Your task to perform on an android device: toggle priority inbox in the gmail app Image 0: 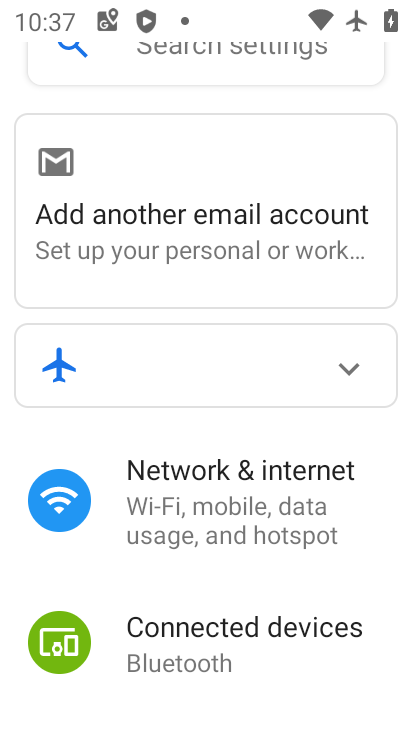
Step 0: press home button
Your task to perform on an android device: toggle priority inbox in the gmail app Image 1: 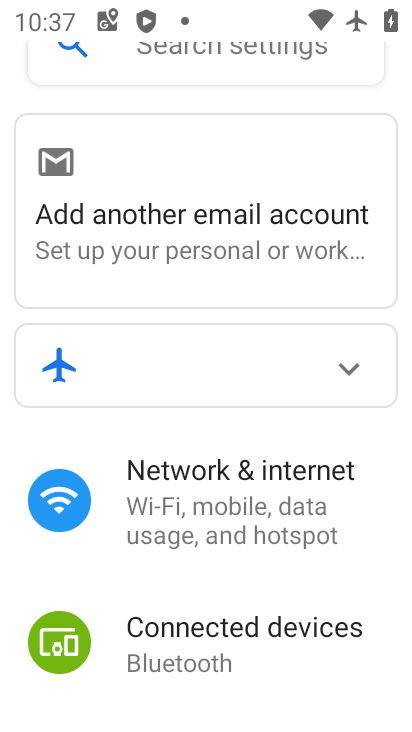
Step 1: press home button
Your task to perform on an android device: toggle priority inbox in the gmail app Image 2: 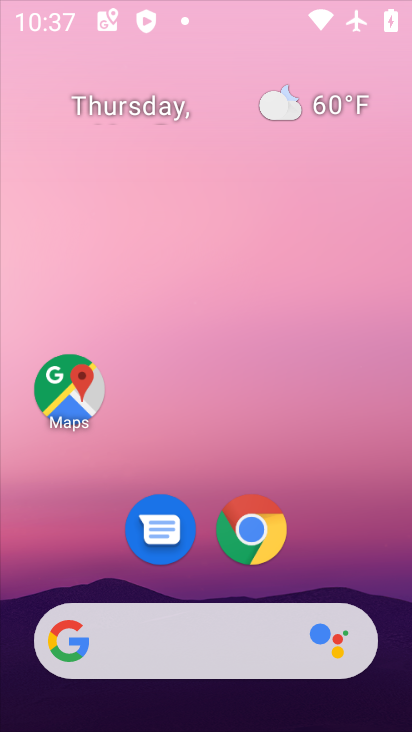
Step 2: press home button
Your task to perform on an android device: toggle priority inbox in the gmail app Image 3: 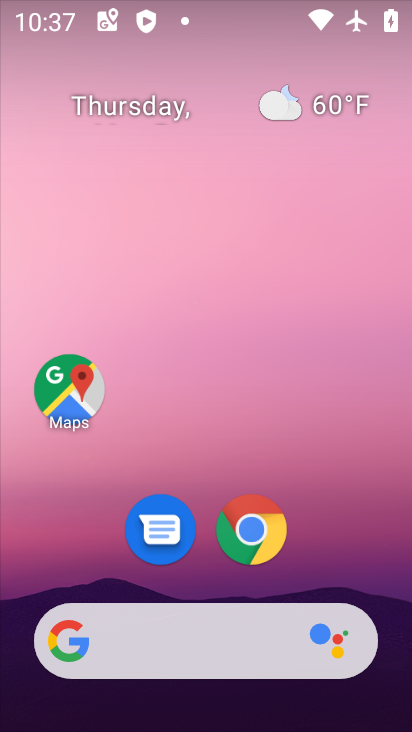
Step 3: drag from (345, 587) to (190, 233)
Your task to perform on an android device: toggle priority inbox in the gmail app Image 4: 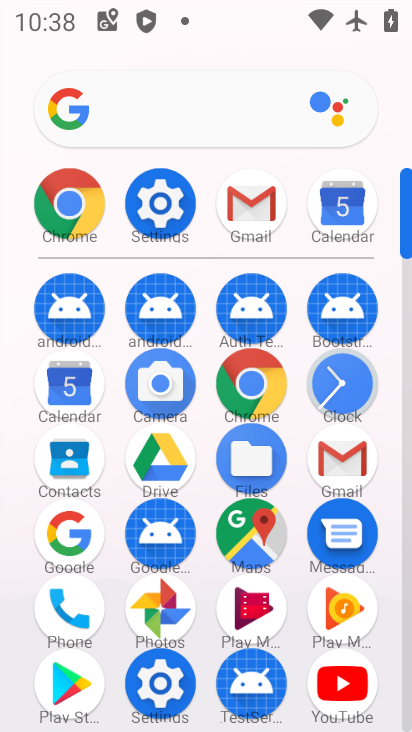
Step 4: click (337, 456)
Your task to perform on an android device: toggle priority inbox in the gmail app Image 5: 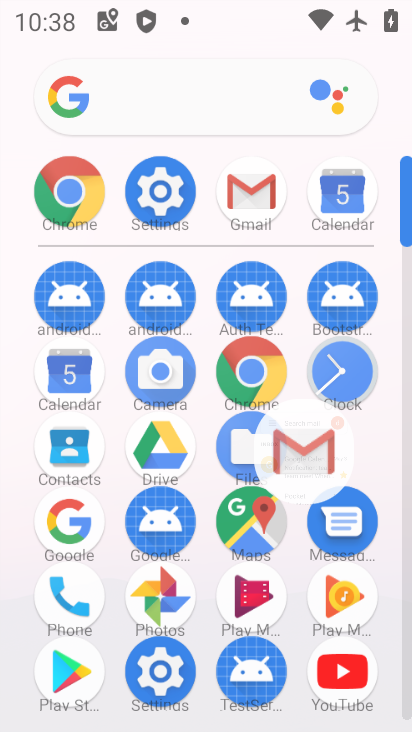
Step 5: click (337, 456)
Your task to perform on an android device: toggle priority inbox in the gmail app Image 6: 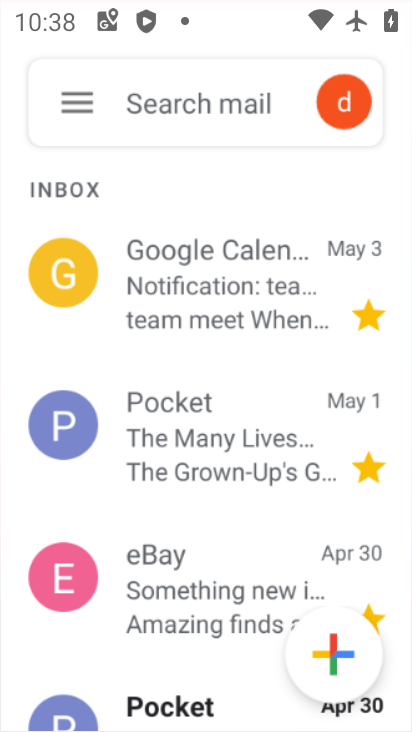
Step 6: click (338, 455)
Your task to perform on an android device: toggle priority inbox in the gmail app Image 7: 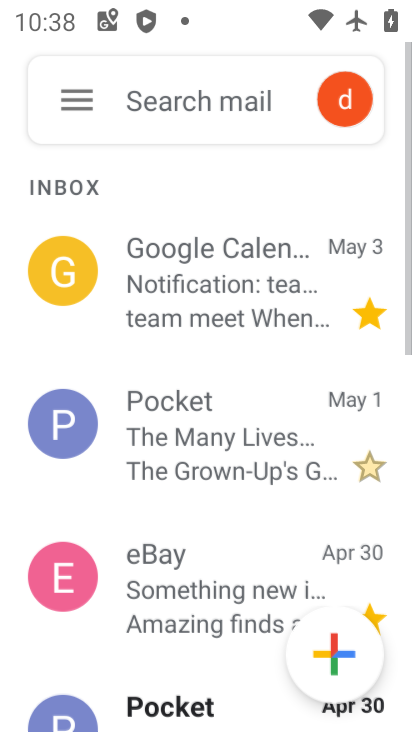
Step 7: click (338, 455)
Your task to perform on an android device: toggle priority inbox in the gmail app Image 8: 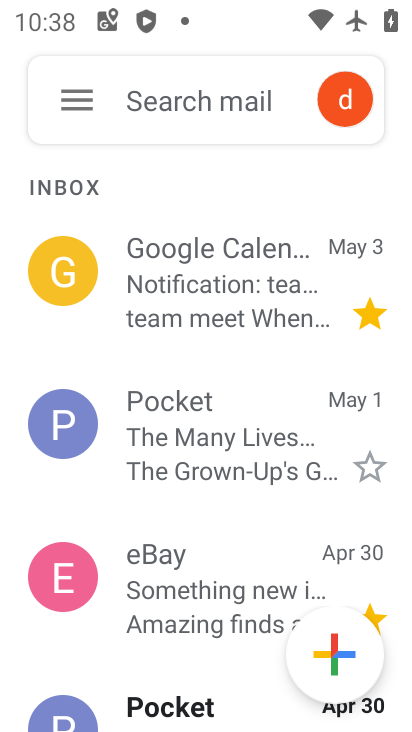
Step 8: click (67, 94)
Your task to perform on an android device: toggle priority inbox in the gmail app Image 9: 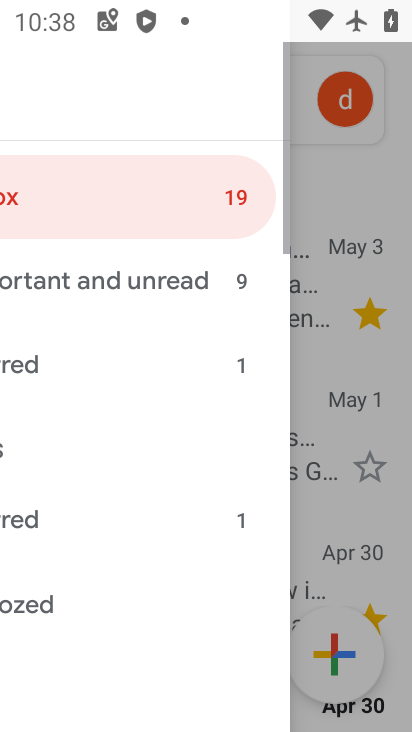
Step 9: click (68, 95)
Your task to perform on an android device: toggle priority inbox in the gmail app Image 10: 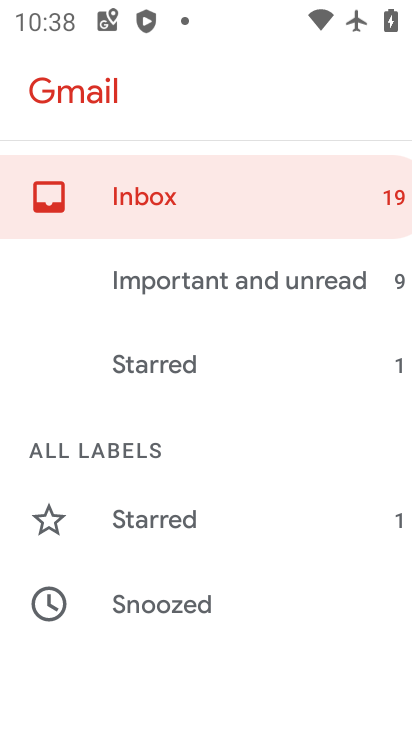
Step 10: click (69, 96)
Your task to perform on an android device: toggle priority inbox in the gmail app Image 11: 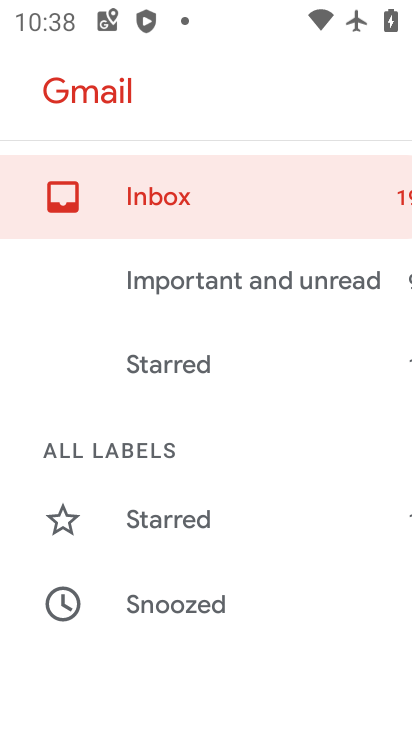
Step 11: drag from (201, 525) to (189, 129)
Your task to perform on an android device: toggle priority inbox in the gmail app Image 12: 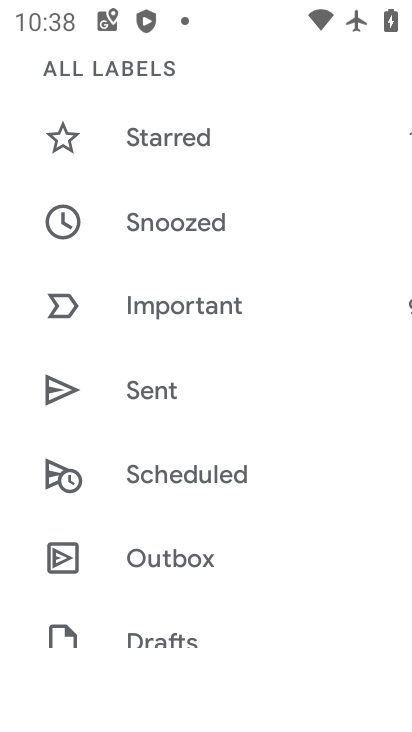
Step 12: drag from (254, 475) to (200, 0)
Your task to perform on an android device: toggle priority inbox in the gmail app Image 13: 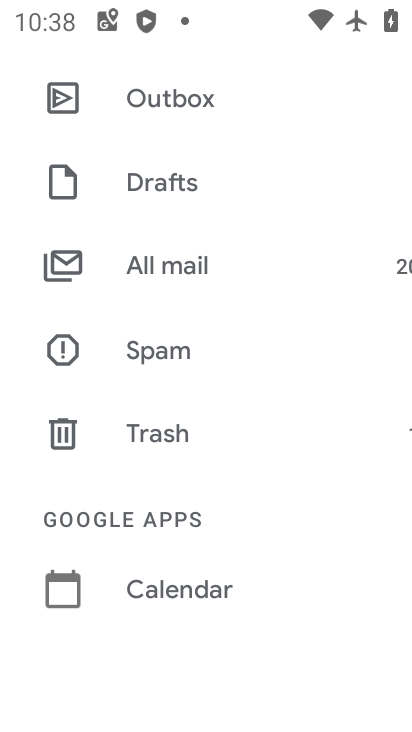
Step 13: drag from (274, 572) to (205, 32)
Your task to perform on an android device: toggle priority inbox in the gmail app Image 14: 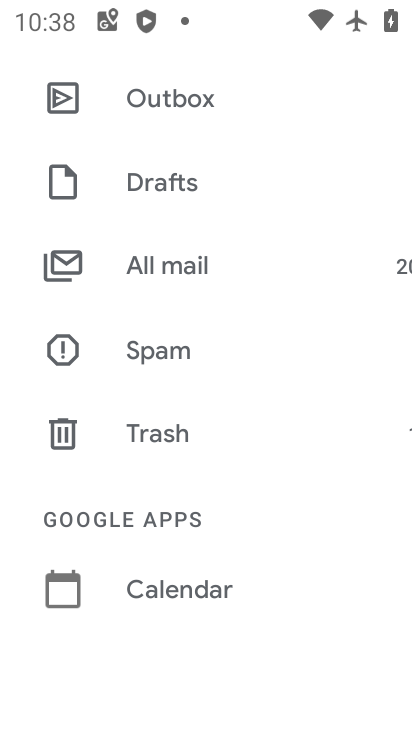
Step 14: drag from (288, 460) to (263, 43)
Your task to perform on an android device: toggle priority inbox in the gmail app Image 15: 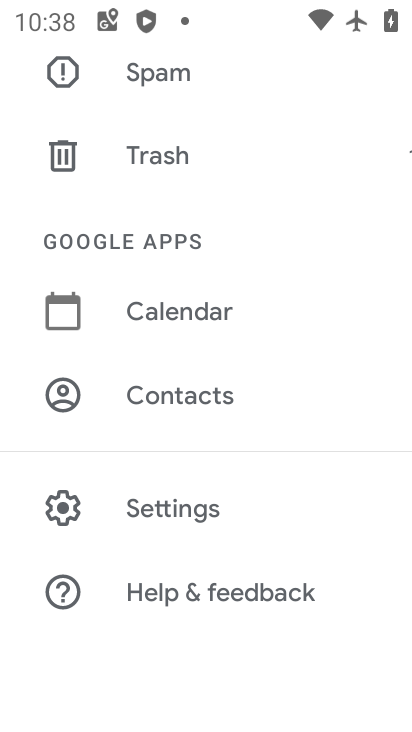
Step 15: click (162, 502)
Your task to perform on an android device: toggle priority inbox in the gmail app Image 16: 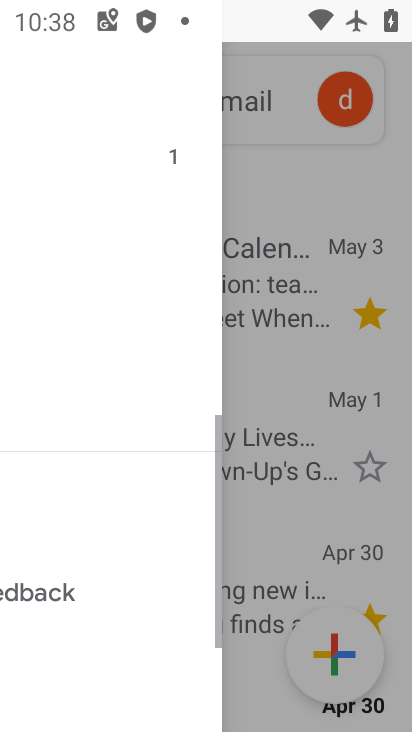
Step 16: click (162, 502)
Your task to perform on an android device: toggle priority inbox in the gmail app Image 17: 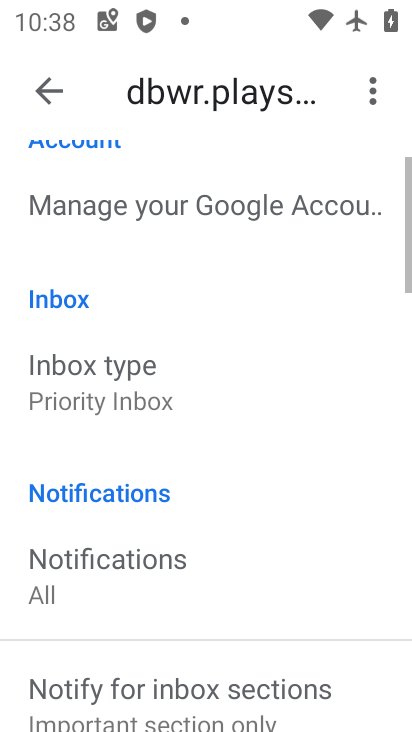
Step 17: drag from (187, 555) to (131, 183)
Your task to perform on an android device: toggle priority inbox in the gmail app Image 18: 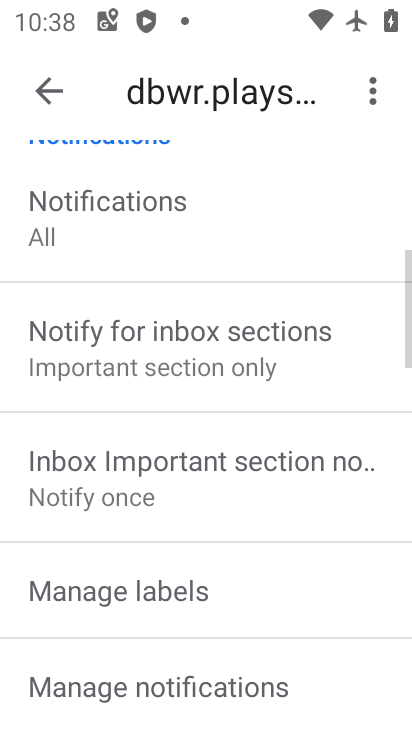
Step 18: drag from (178, 470) to (165, 26)
Your task to perform on an android device: toggle priority inbox in the gmail app Image 19: 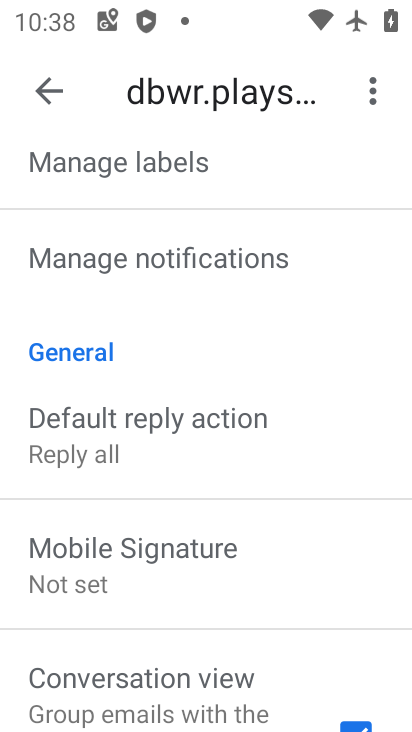
Step 19: drag from (110, 240) to (201, 581)
Your task to perform on an android device: toggle priority inbox in the gmail app Image 20: 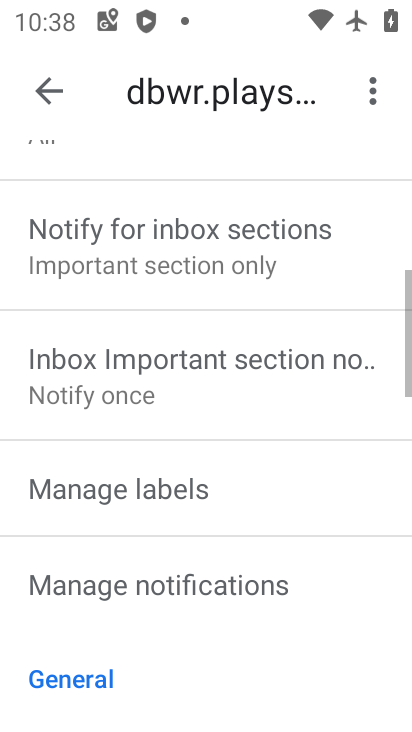
Step 20: drag from (154, 272) to (213, 530)
Your task to perform on an android device: toggle priority inbox in the gmail app Image 21: 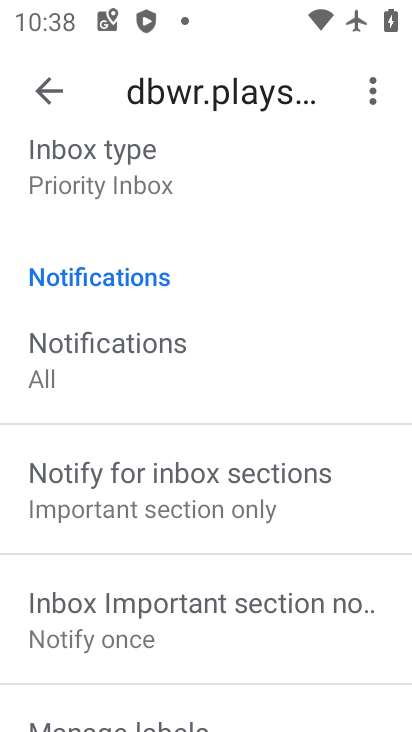
Step 21: click (89, 184)
Your task to perform on an android device: toggle priority inbox in the gmail app Image 22: 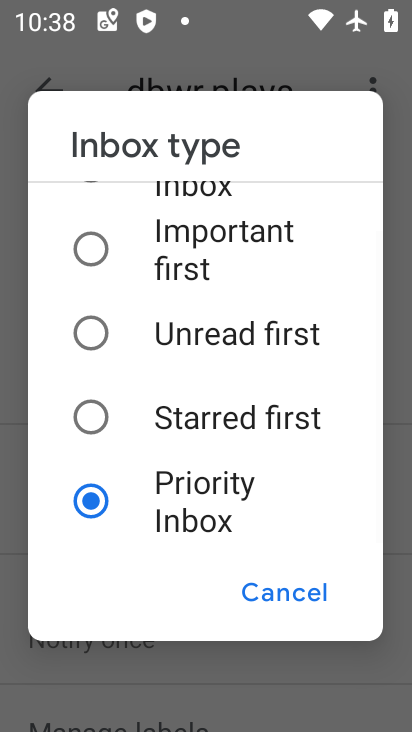
Step 22: click (78, 414)
Your task to perform on an android device: toggle priority inbox in the gmail app Image 23: 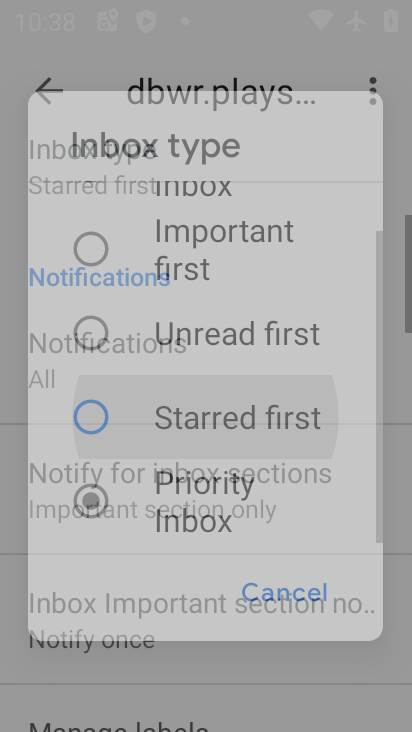
Step 23: click (82, 421)
Your task to perform on an android device: toggle priority inbox in the gmail app Image 24: 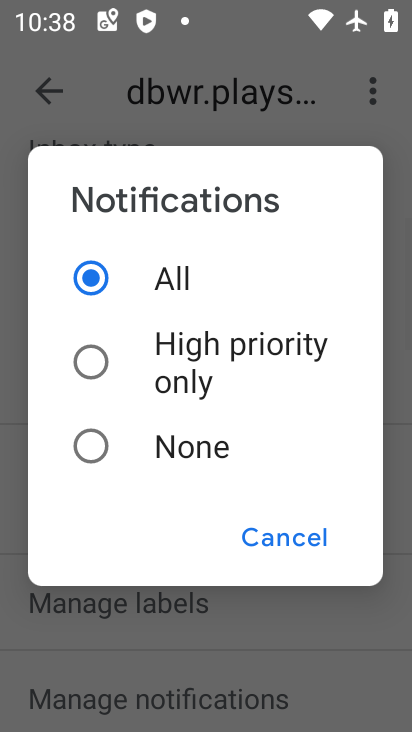
Step 24: click (277, 530)
Your task to perform on an android device: toggle priority inbox in the gmail app Image 25: 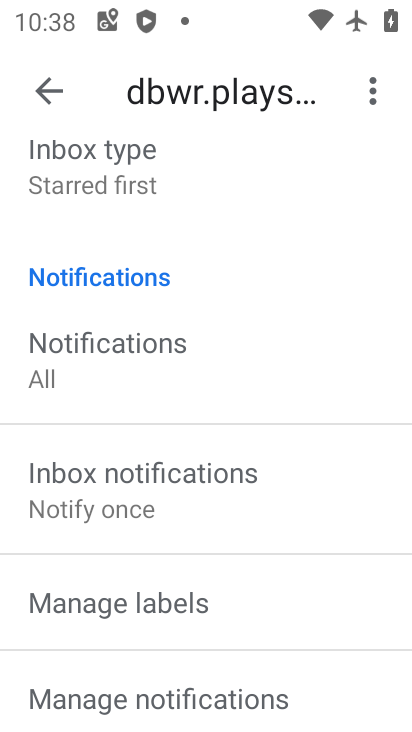
Step 25: task complete